Your task to perform on an android device: Search for seafood restaurants on Google Maps Image 0: 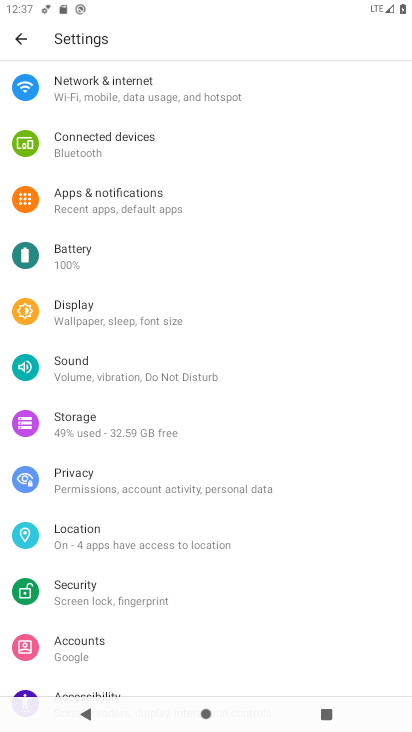
Step 0: press home button
Your task to perform on an android device: Search for seafood restaurants on Google Maps Image 1: 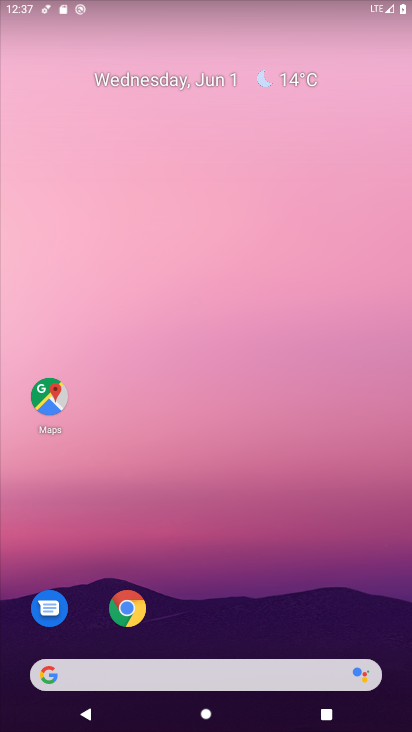
Step 1: click (43, 384)
Your task to perform on an android device: Search for seafood restaurants on Google Maps Image 2: 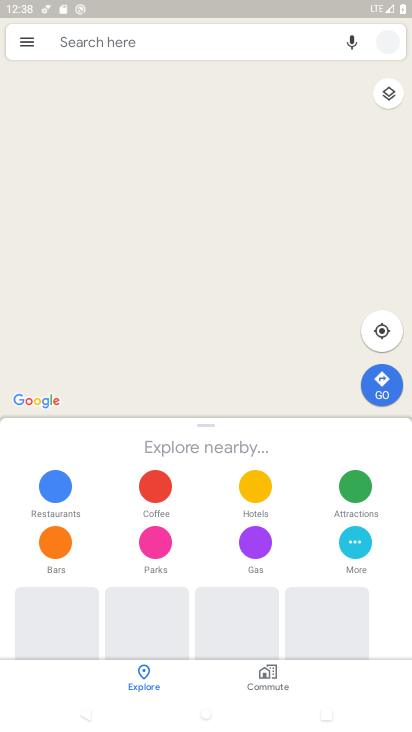
Step 2: click (230, 30)
Your task to perform on an android device: Search for seafood restaurants on Google Maps Image 3: 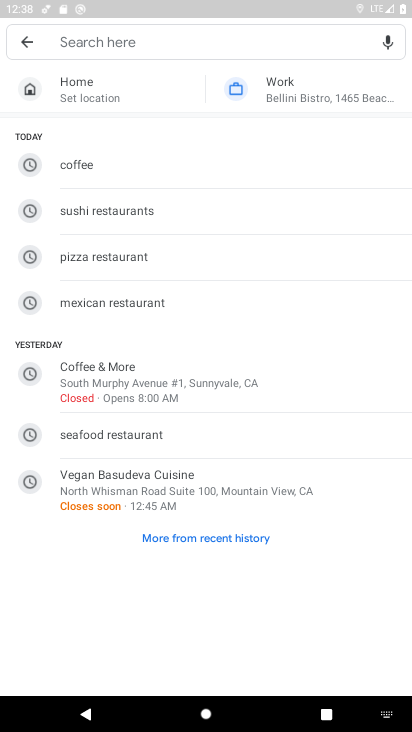
Step 3: type "seafood restaurants"
Your task to perform on an android device: Search for seafood restaurants on Google Maps Image 4: 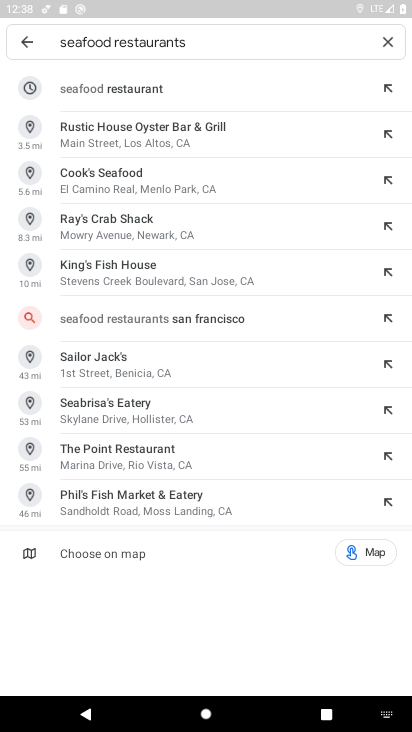
Step 4: click (156, 89)
Your task to perform on an android device: Search for seafood restaurants on Google Maps Image 5: 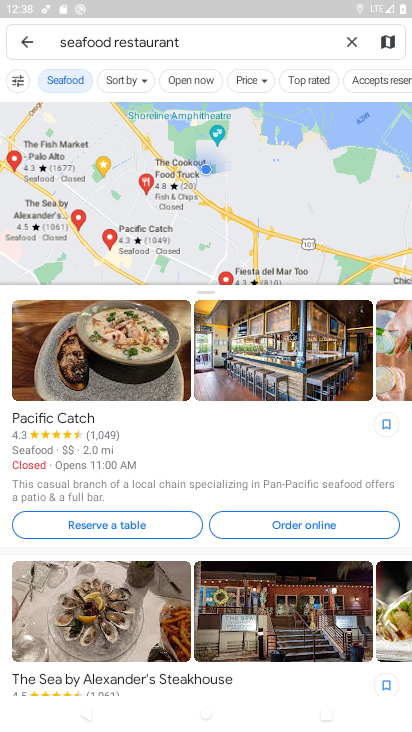
Step 5: task complete